Your task to perform on an android device: Go to CNN.com Image 0: 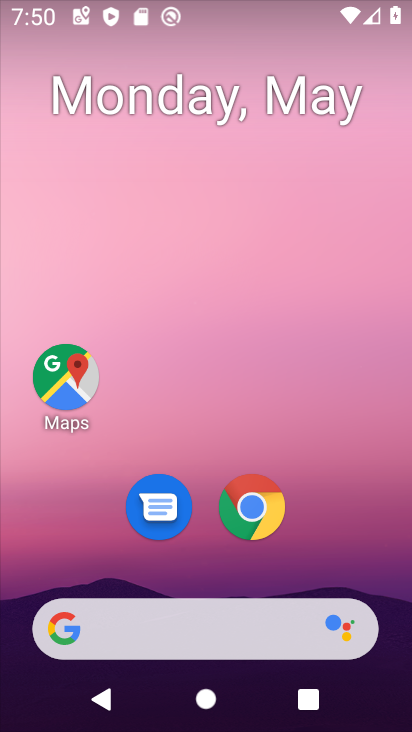
Step 0: click (252, 502)
Your task to perform on an android device: Go to CNN.com Image 1: 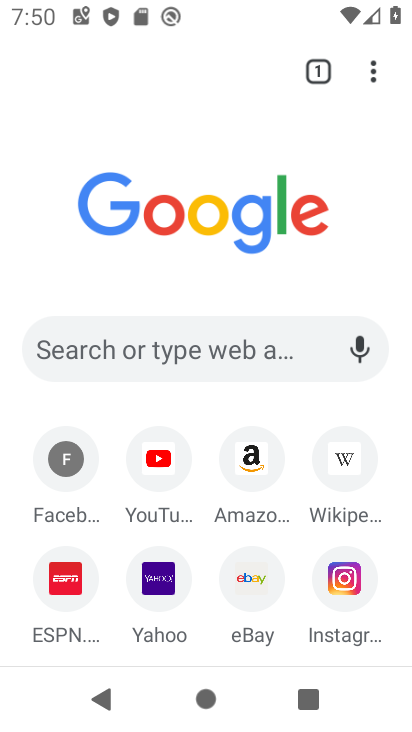
Step 1: click (134, 350)
Your task to perform on an android device: Go to CNN.com Image 2: 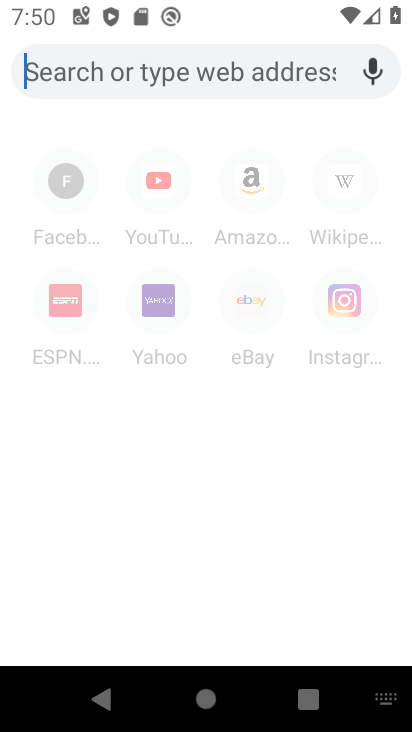
Step 2: type "cnn.com"
Your task to perform on an android device: Go to CNN.com Image 3: 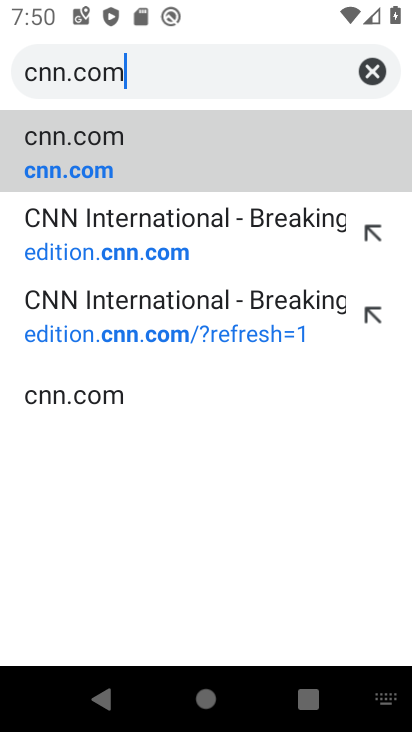
Step 3: click (125, 156)
Your task to perform on an android device: Go to CNN.com Image 4: 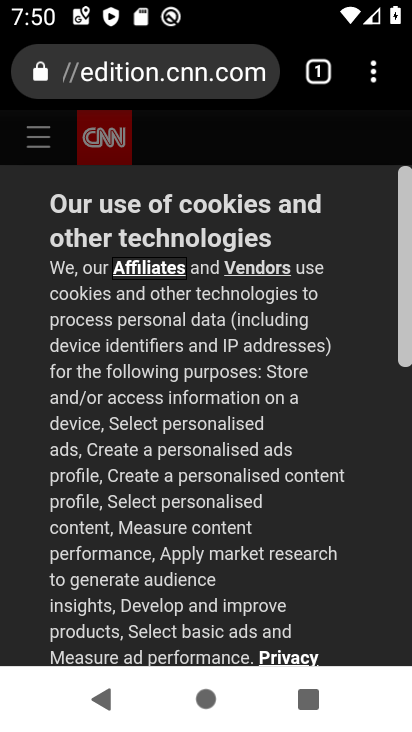
Step 4: drag from (240, 624) to (280, 216)
Your task to perform on an android device: Go to CNN.com Image 5: 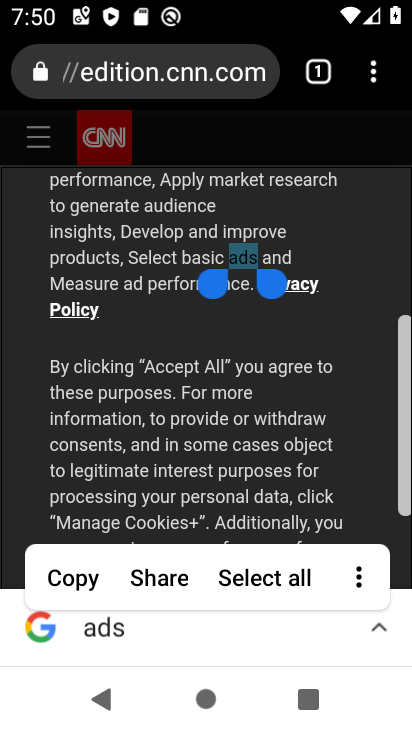
Step 5: drag from (193, 509) to (214, 149)
Your task to perform on an android device: Go to CNN.com Image 6: 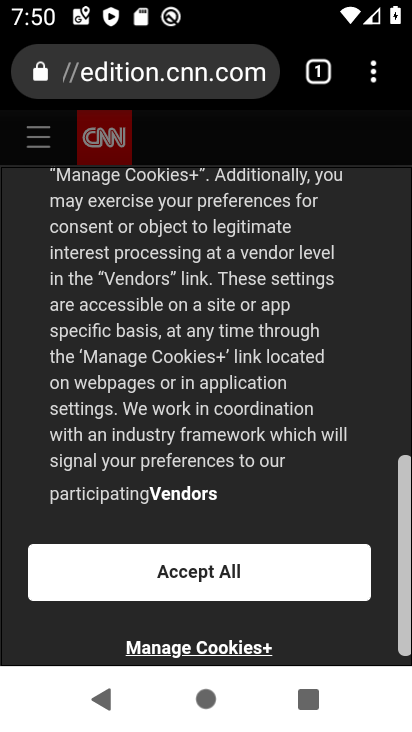
Step 6: click (205, 567)
Your task to perform on an android device: Go to CNN.com Image 7: 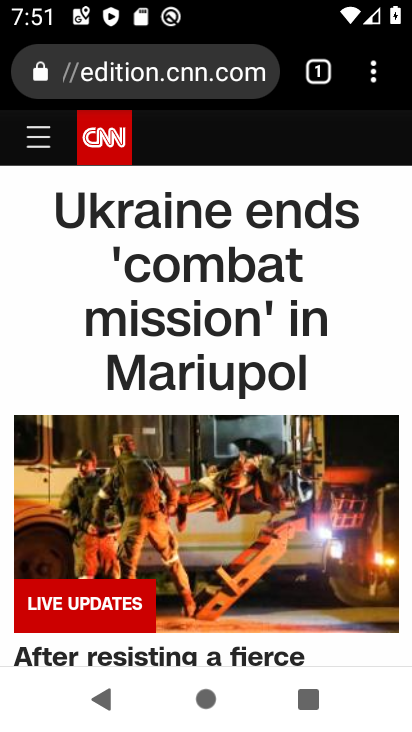
Step 7: task complete